Your task to perform on an android device: Go to Maps Image 0: 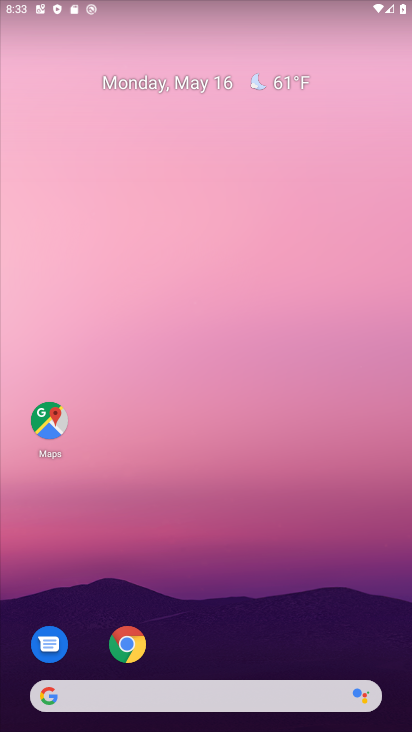
Step 0: click (50, 417)
Your task to perform on an android device: Go to Maps Image 1: 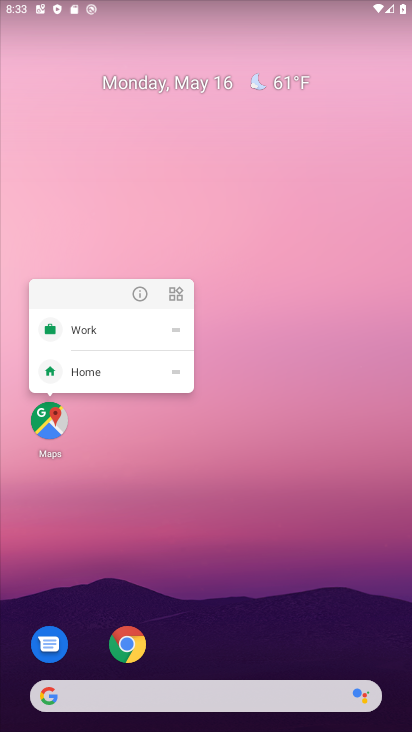
Step 1: click (53, 422)
Your task to perform on an android device: Go to Maps Image 2: 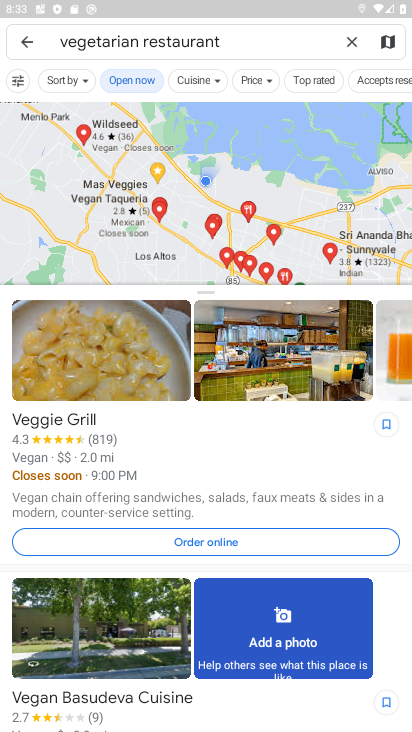
Step 2: task complete